Your task to perform on an android device: Go to Google maps Image 0: 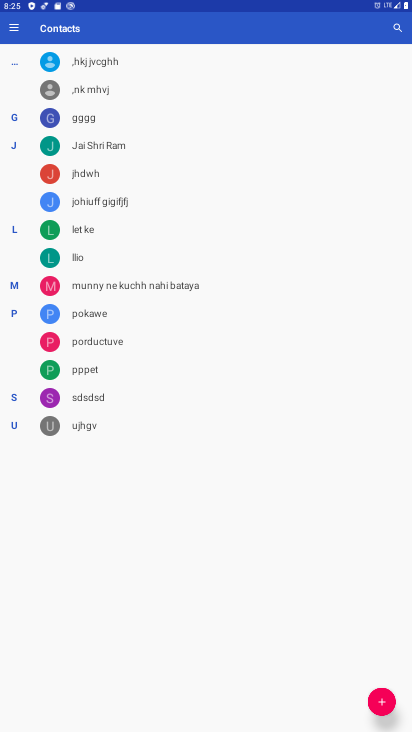
Step 0: press home button
Your task to perform on an android device: Go to Google maps Image 1: 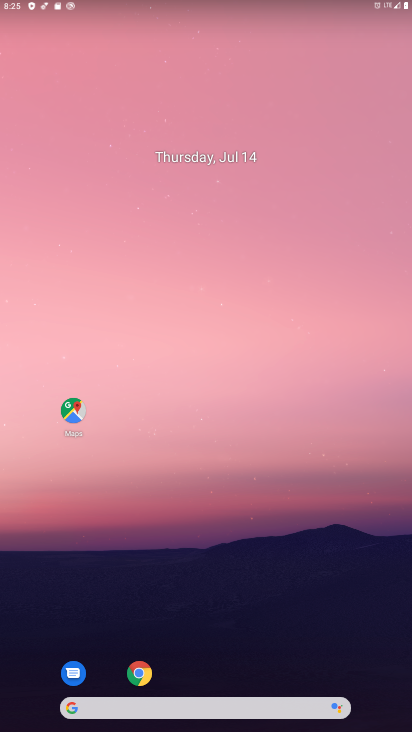
Step 1: click (71, 409)
Your task to perform on an android device: Go to Google maps Image 2: 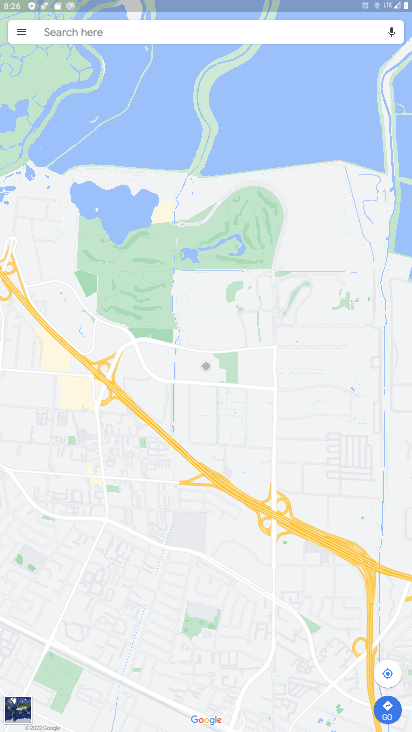
Step 2: task complete